Your task to perform on an android device: Open Youtube and go to the subscriptions tab Image 0: 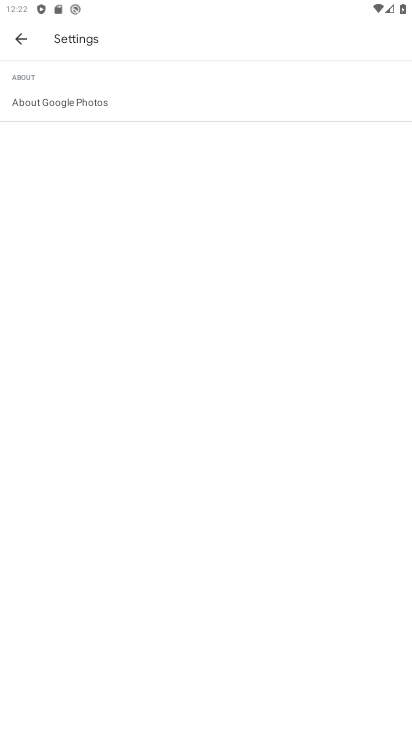
Step 0: click (108, 690)
Your task to perform on an android device: Open Youtube and go to the subscriptions tab Image 1: 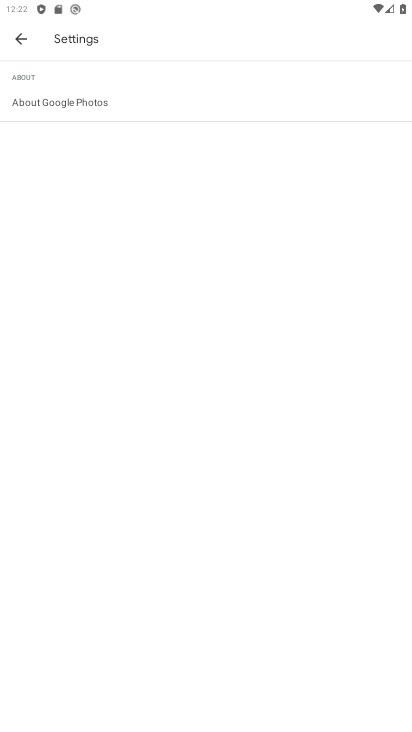
Step 1: press home button
Your task to perform on an android device: Open Youtube and go to the subscriptions tab Image 2: 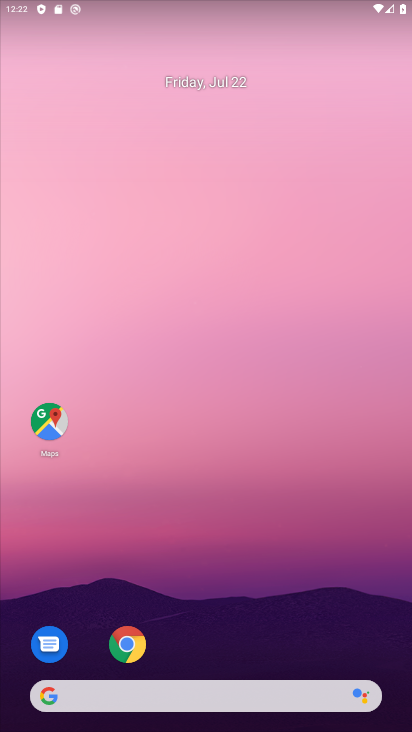
Step 2: drag from (160, 655) to (220, 72)
Your task to perform on an android device: Open Youtube and go to the subscriptions tab Image 3: 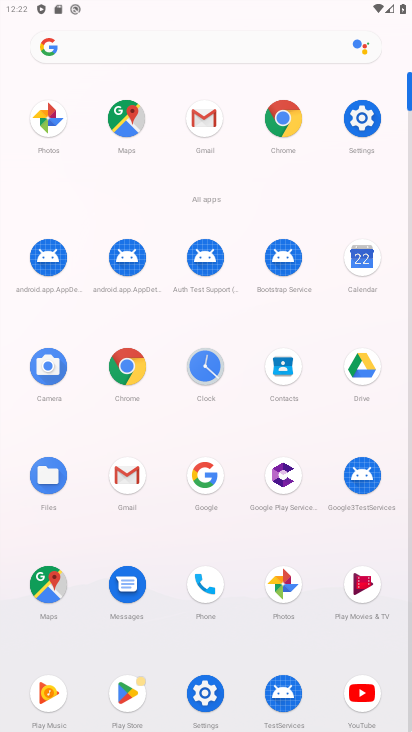
Step 3: click (350, 704)
Your task to perform on an android device: Open Youtube and go to the subscriptions tab Image 4: 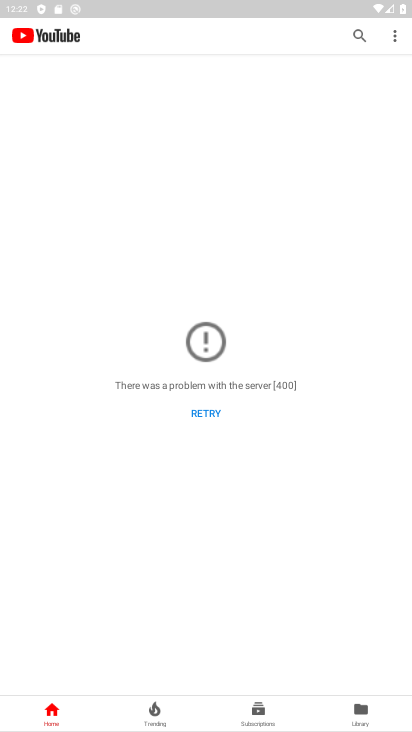
Step 4: click (264, 715)
Your task to perform on an android device: Open Youtube and go to the subscriptions tab Image 5: 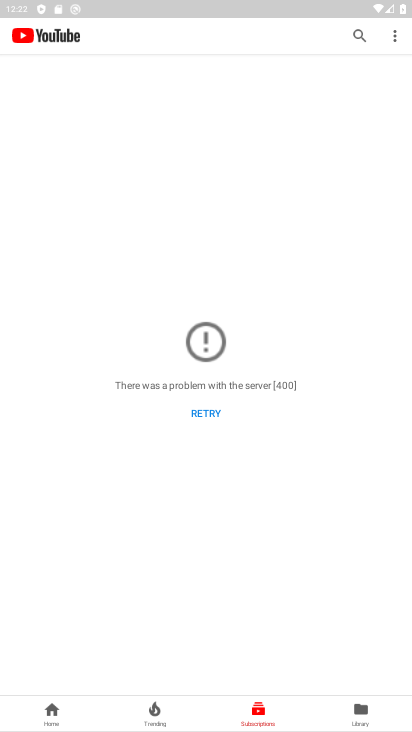
Step 5: task complete